Your task to perform on an android device: turn on sleep mode Image 0: 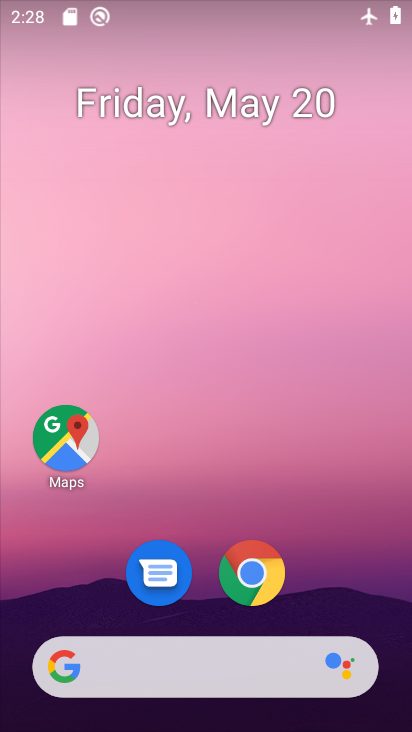
Step 0: drag from (204, 606) to (206, 200)
Your task to perform on an android device: turn on sleep mode Image 1: 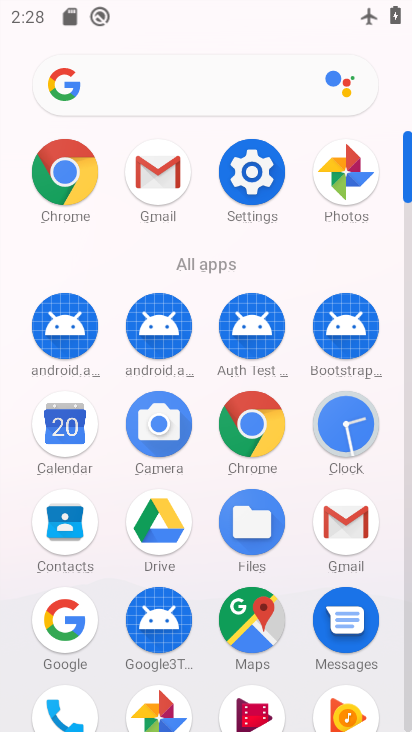
Step 1: click (244, 178)
Your task to perform on an android device: turn on sleep mode Image 2: 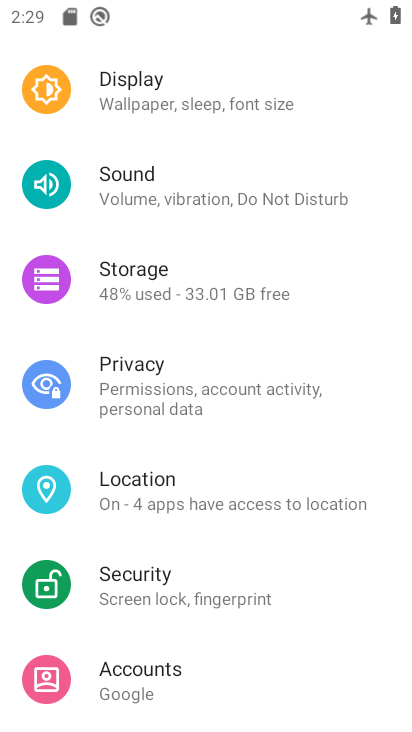
Step 2: drag from (181, 205) to (186, 364)
Your task to perform on an android device: turn on sleep mode Image 3: 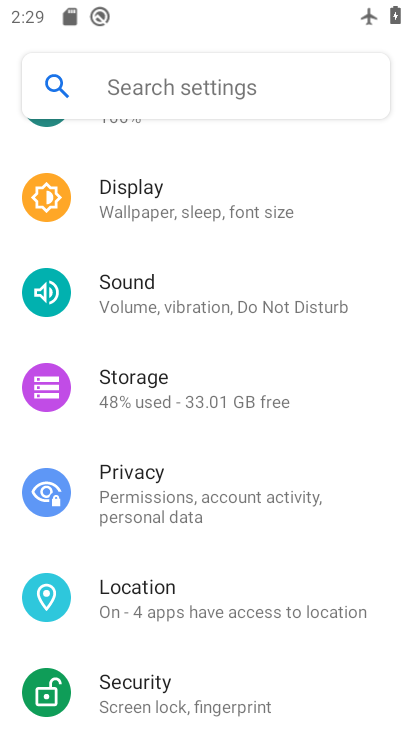
Step 3: drag from (184, 207) to (194, 437)
Your task to perform on an android device: turn on sleep mode Image 4: 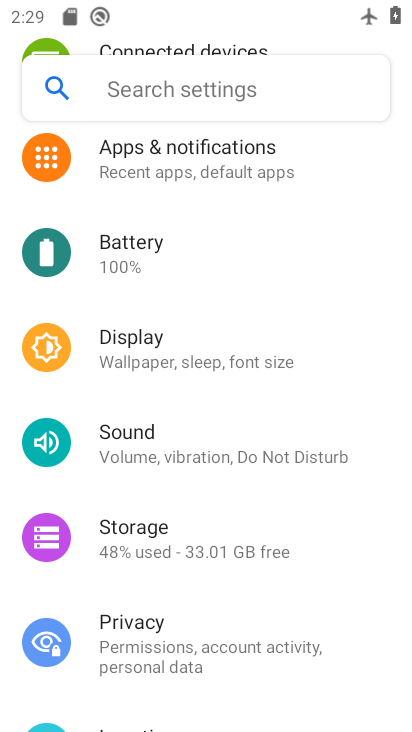
Step 4: click (192, 346)
Your task to perform on an android device: turn on sleep mode Image 5: 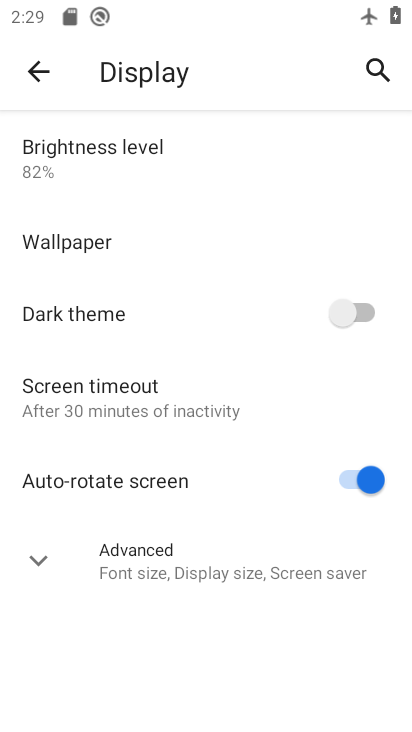
Step 5: click (155, 384)
Your task to perform on an android device: turn on sleep mode Image 6: 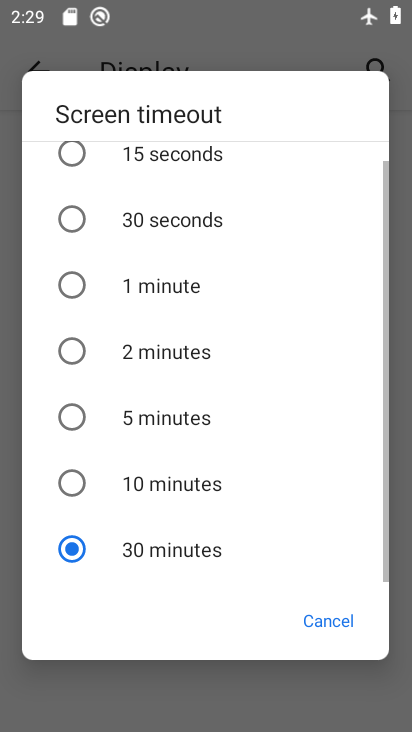
Step 6: click (155, 234)
Your task to perform on an android device: turn on sleep mode Image 7: 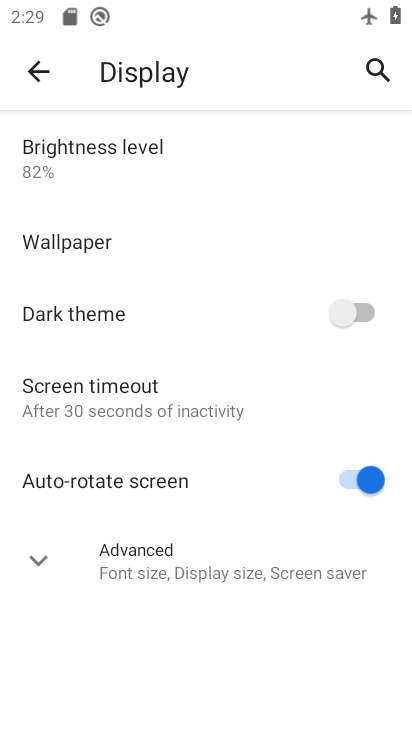
Step 7: task complete